Your task to perform on an android device: turn notification dots on Image 0: 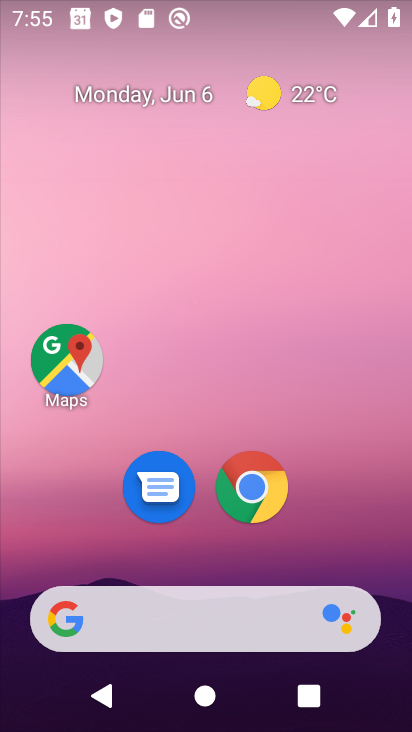
Step 0: drag from (353, 536) to (330, 151)
Your task to perform on an android device: turn notification dots on Image 1: 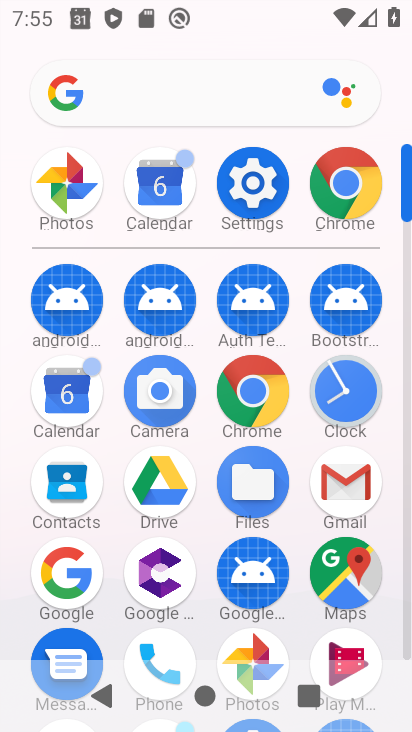
Step 1: click (232, 199)
Your task to perform on an android device: turn notification dots on Image 2: 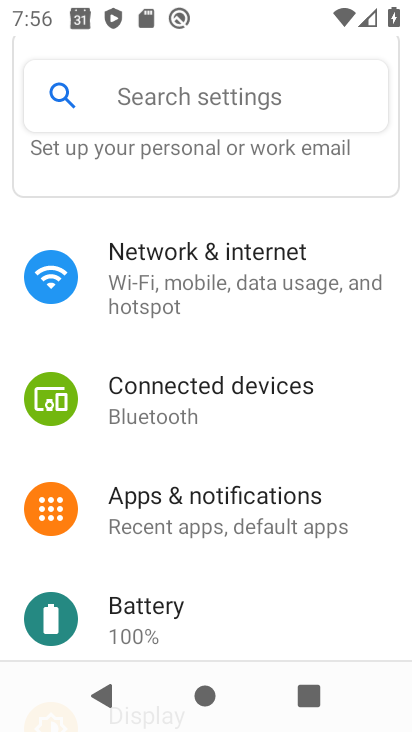
Step 2: click (240, 507)
Your task to perform on an android device: turn notification dots on Image 3: 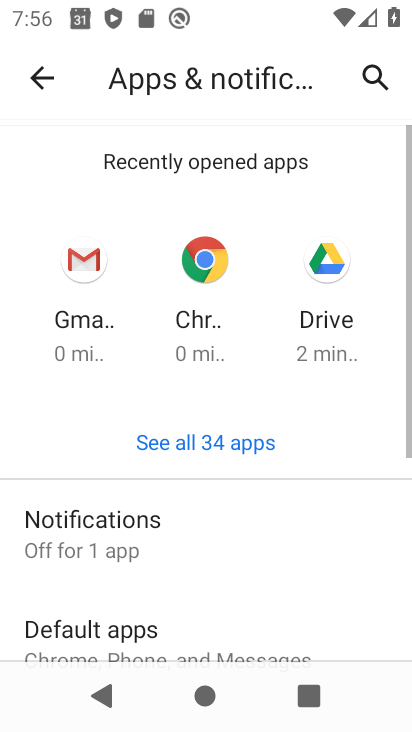
Step 3: click (173, 532)
Your task to perform on an android device: turn notification dots on Image 4: 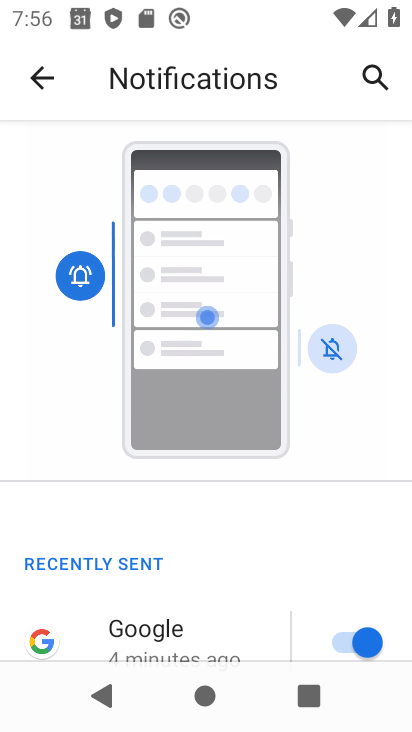
Step 4: drag from (204, 558) to (278, 289)
Your task to perform on an android device: turn notification dots on Image 5: 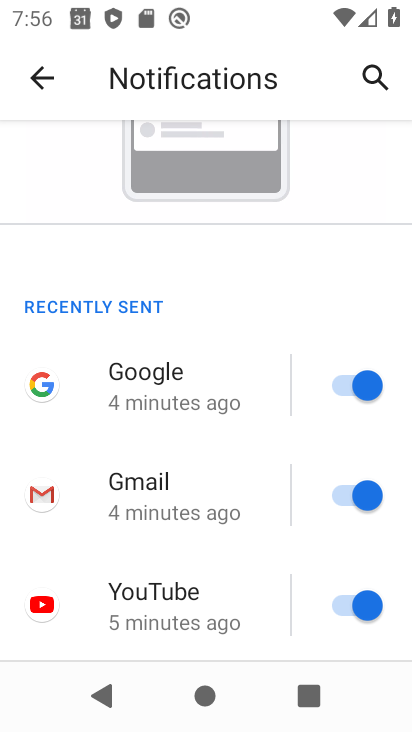
Step 5: drag from (275, 561) to (257, 275)
Your task to perform on an android device: turn notification dots on Image 6: 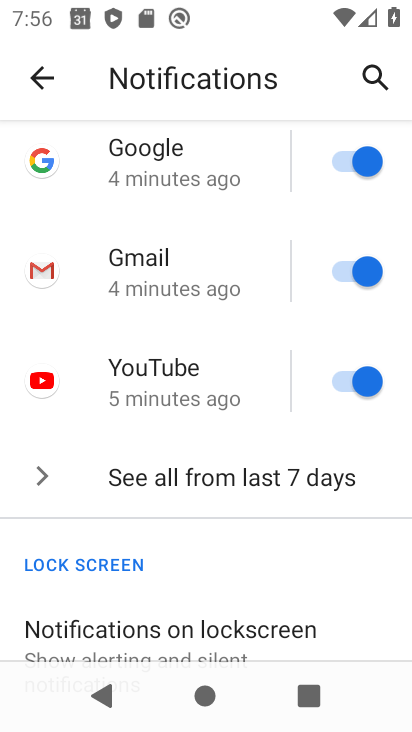
Step 6: drag from (237, 598) to (237, 316)
Your task to perform on an android device: turn notification dots on Image 7: 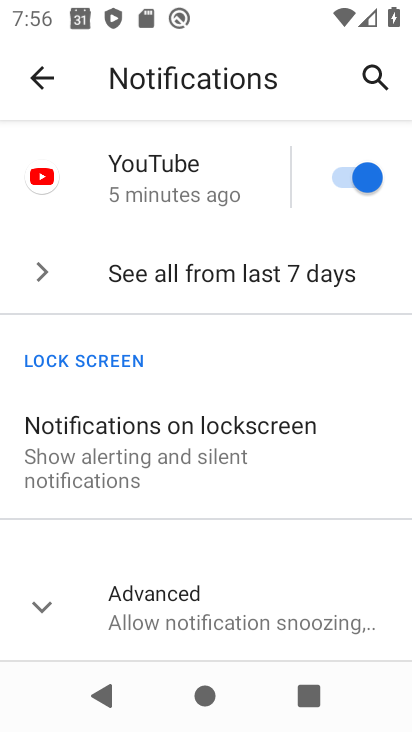
Step 7: click (229, 609)
Your task to perform on an android device: turn notification dots on Image 8: 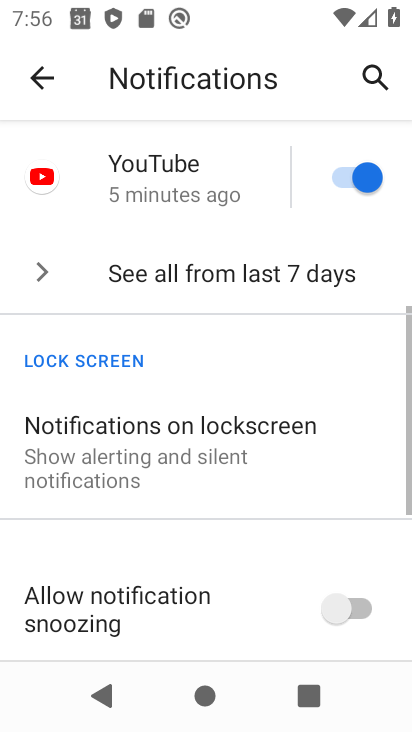
Step 8: task complete